Your task to perform on an android device: Check the news Image 0: 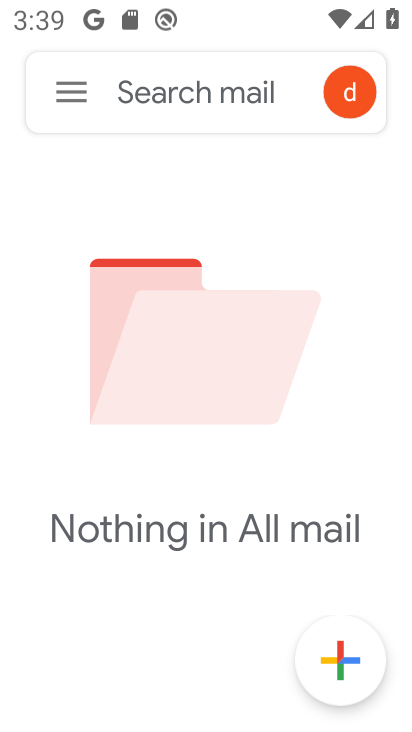
Step 0: press home button
Your task to perform on an android device: Check the news Image 1: 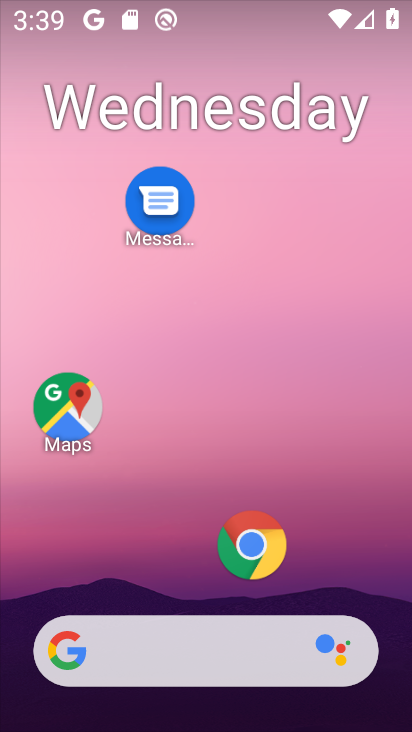
Step 1: click (179, 662)
Your task to perform on an android device: Check the news Image 2: 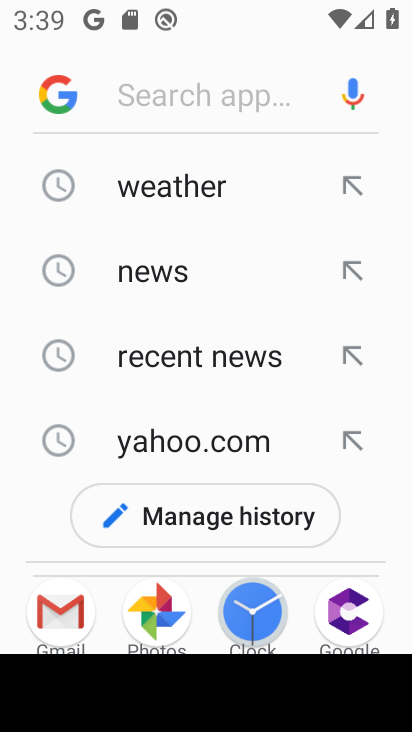
Step 2: click (169, 268)
Your task to perform on an android device: Check the news Image 3: 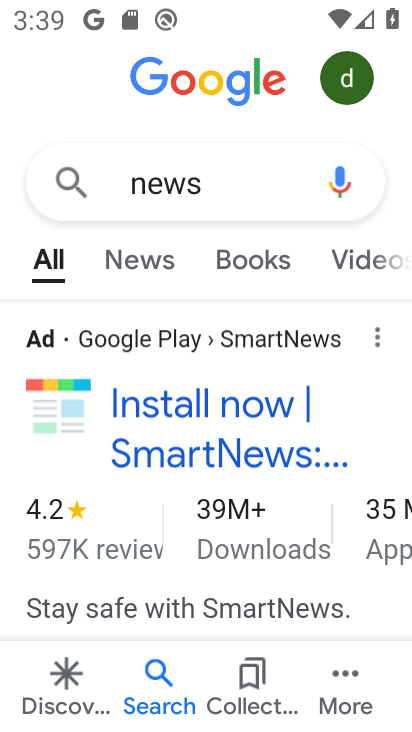
Step 3: click (155, 254)
Your task to perform on an android device: Check the news Image 4: 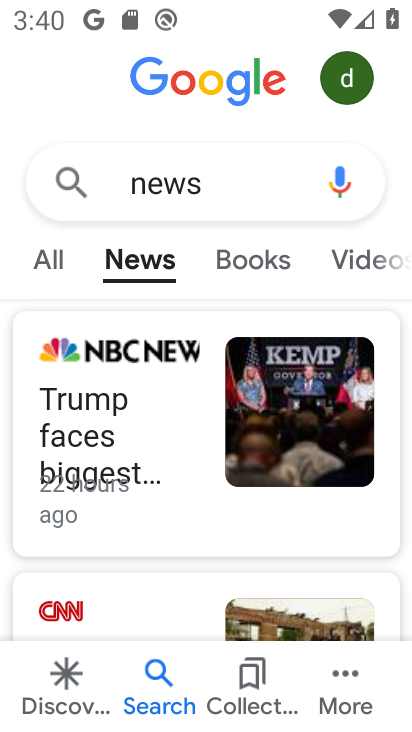
Step 4: task complete